Your task to perform on an android device: Open eBay Image 0: 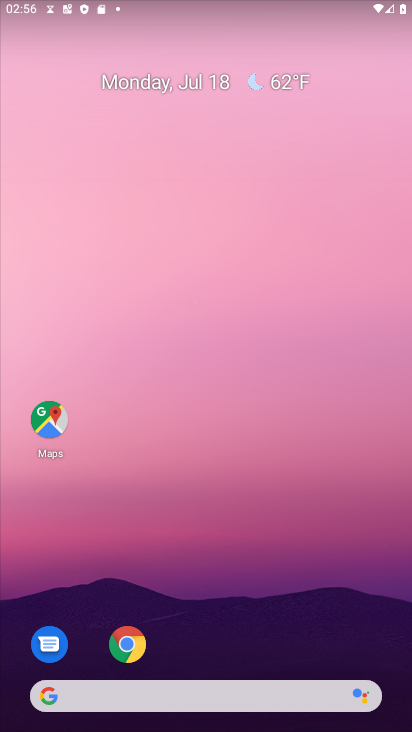
Step 0: drag from (274, 572) to (300, 95)
Your task to perform on an android device: Open eBay Image 1: 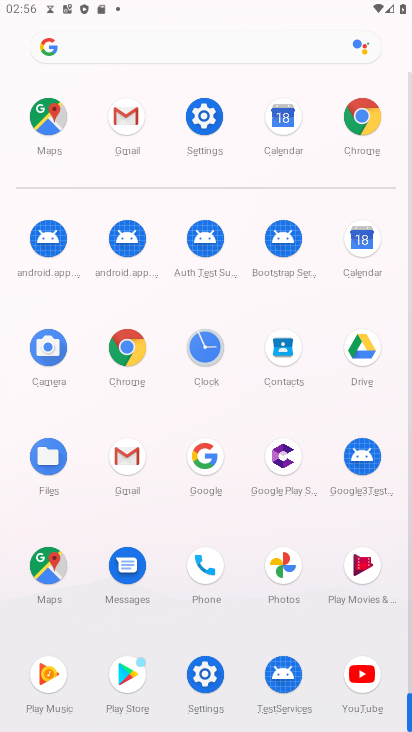
Step 1: click (352, 121)
Your task to perform on an android device: Open eBay Image 2: 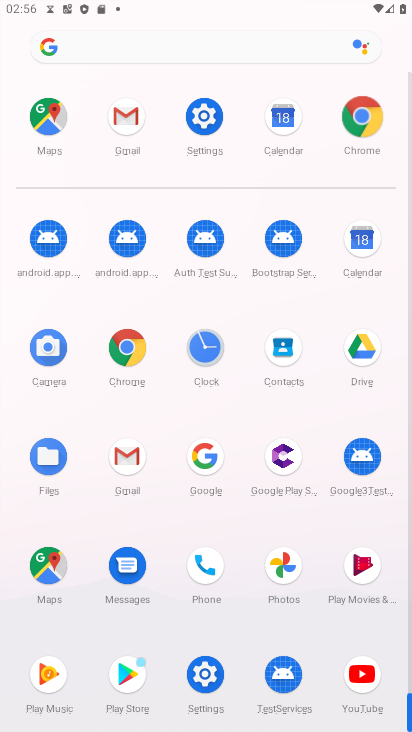
Step 2: click (361, 120)
Your task to perform on an android device: Open eBay Image 3: 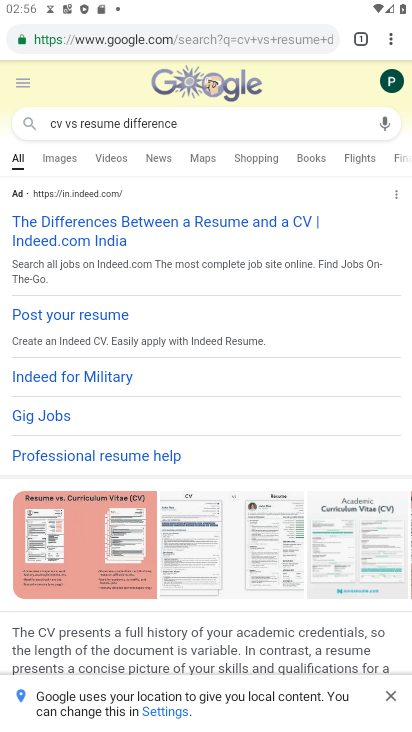
Step 3: click (388, 43)
Your task to perform on an android device: Open eBay Image 4: 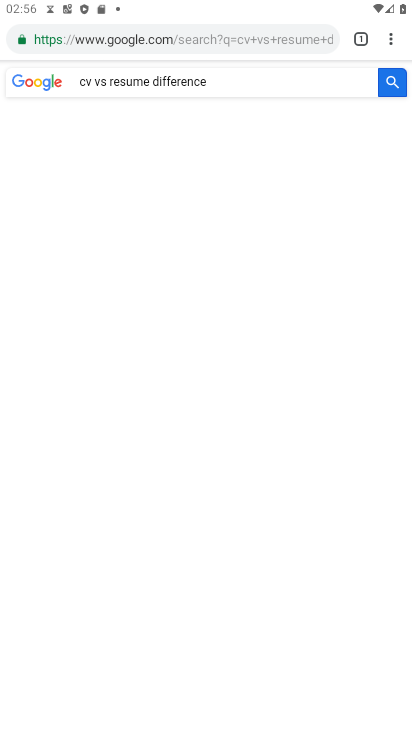
Step 4: drag from (384, 33) to (262, 90)
Your task to perform on an android device: Open eBay Image 5: 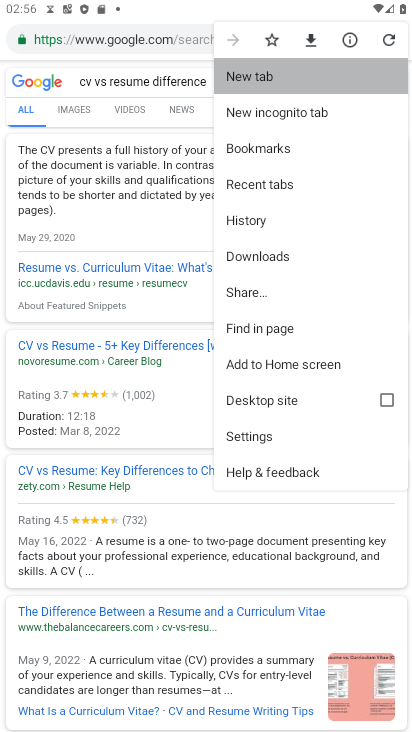
Step 5: click (262, 90)
Your task to perform on an android device: Open eBay Image 6: 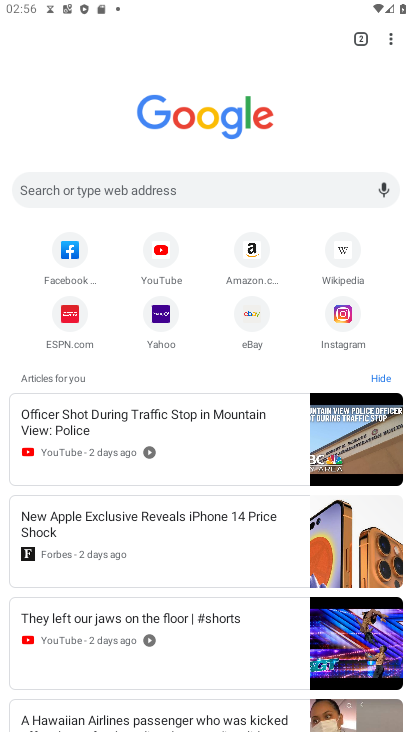
Step 6: click (246, 308)
Your task to perform on an android device: Open eBay Image 7: 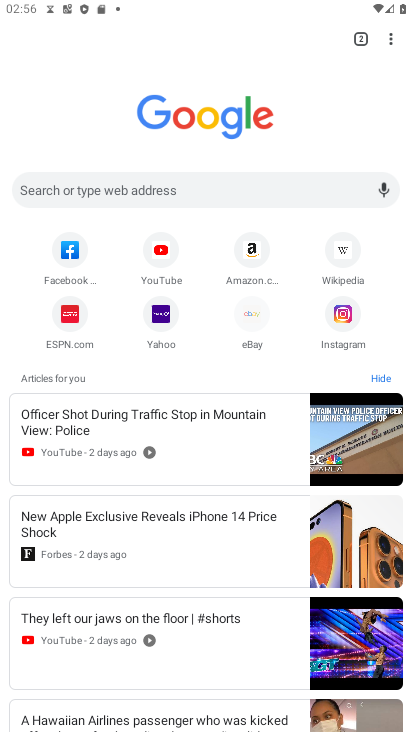
Step 7: click (245, 309)
Your task to perform on an android device: Open eBay Image 8: 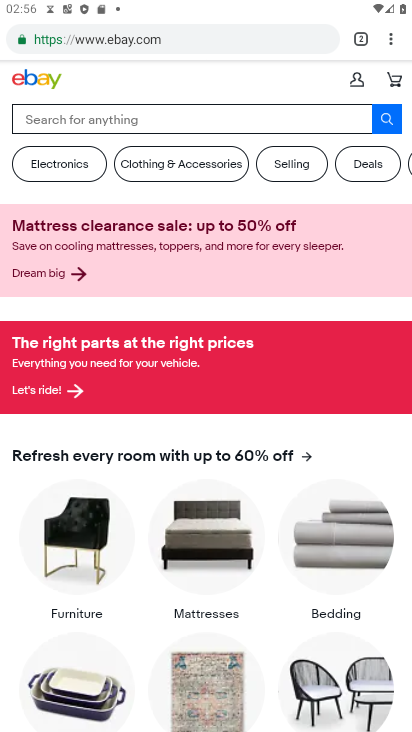
Step 8: task complete